Your task to perform on an android device: Open location settings Image 0: 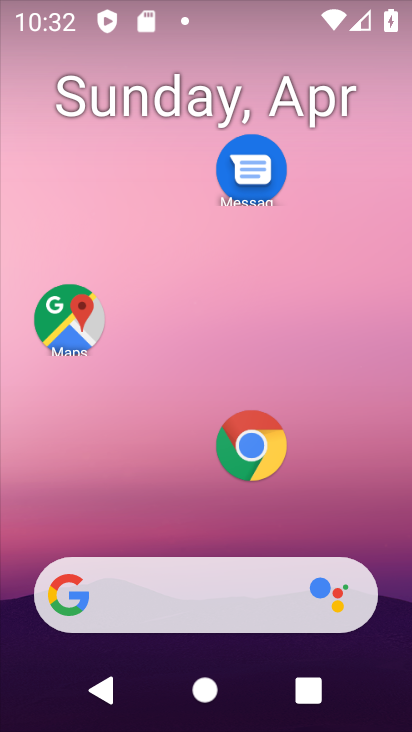
Step 0: press home button
Your task to perform on an android device: Open location settings Image 1: 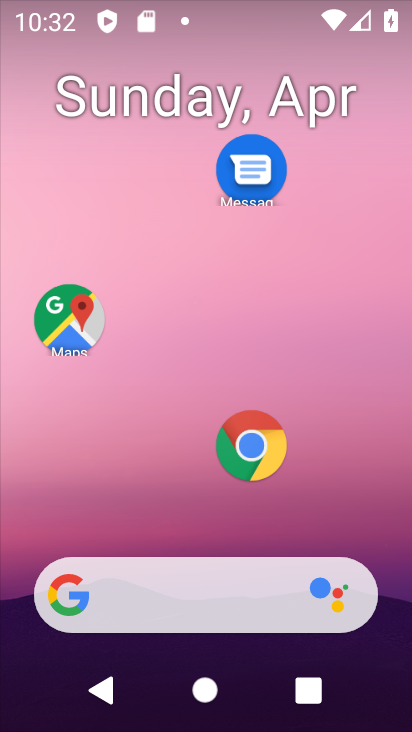
Step 1: drag from (165, 581) to (364, 44)
Your task to perform on an android device: Open location settings Image 2: 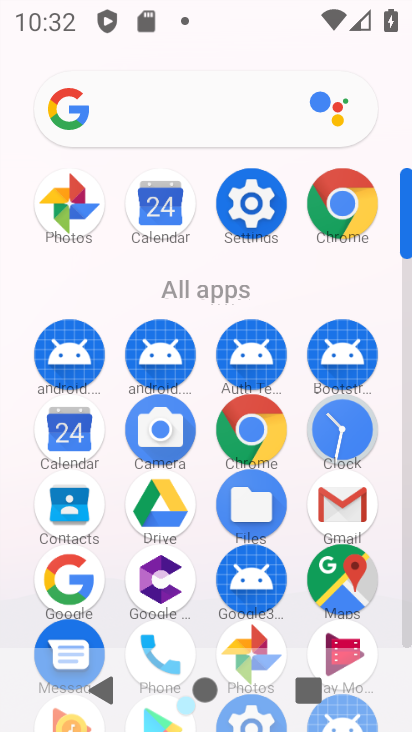
Step 2: click (257, 218)
Your task to perform on an android device: Open location settings Image 3: 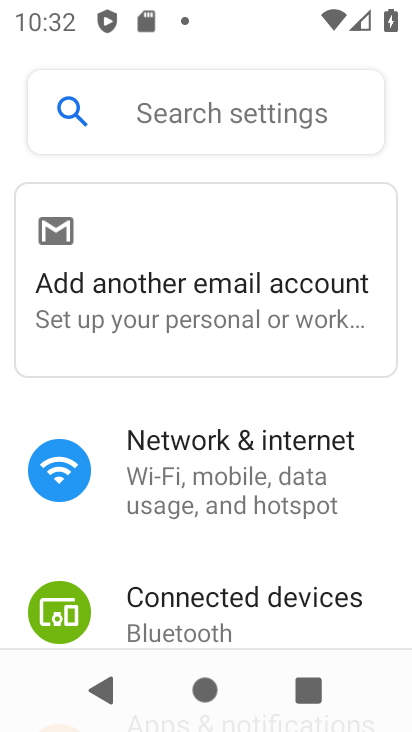
Step 3: drag from (194, 573) to (339, 203)
Your task to perform on an android device: Open location settings Image 4: 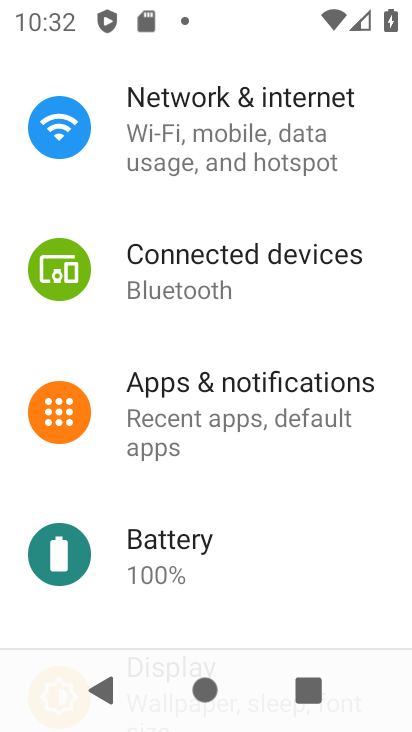
Step 4: drag from (244, 542) to (391, 228)
Your task to perform on an android device: Open location settings Image 5: 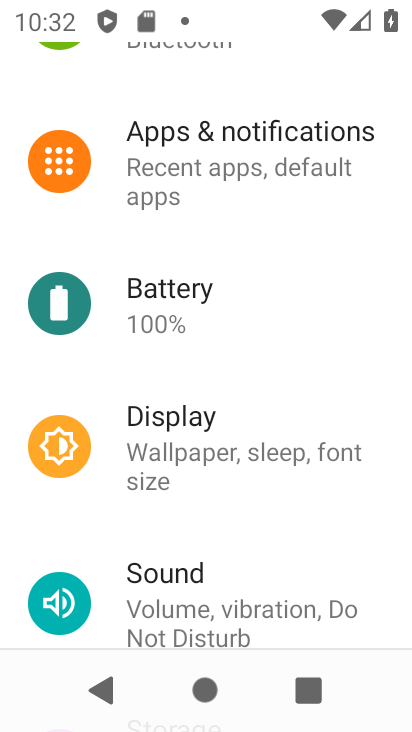
Step 5: drag from (221, 500) to (409, 9)
Your task to perform on an android device: Open location settings Image 6: 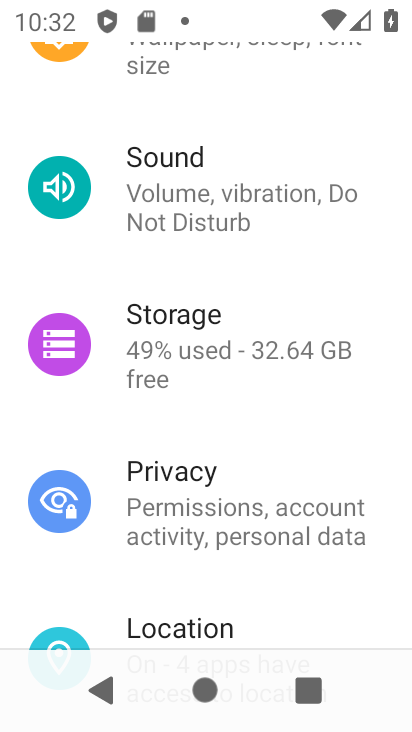
Step 6: drag from (238, 528) to (357, 118)
Your task to perform on an android device: Open location settings Image 7: 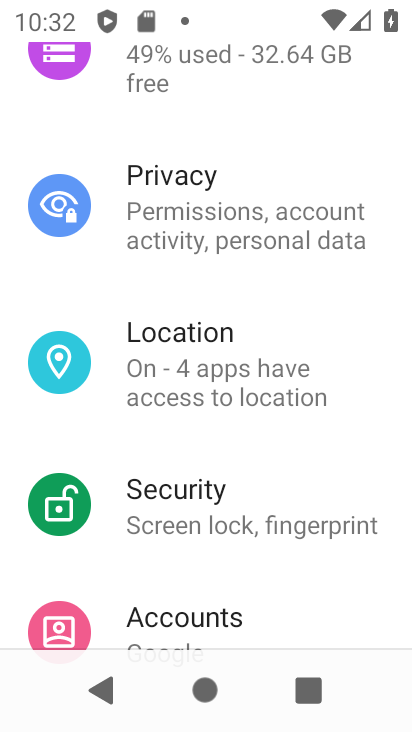
Step 7: click (203, 333)
Your task to perform on an android device: Open location settings Image 8: 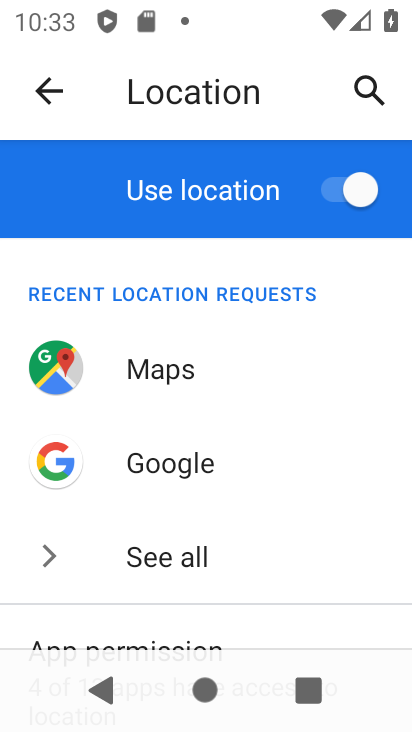
Step 8: task complete